Your task to perform on an android device: turn off notifications settings in the gmail app Image 0: 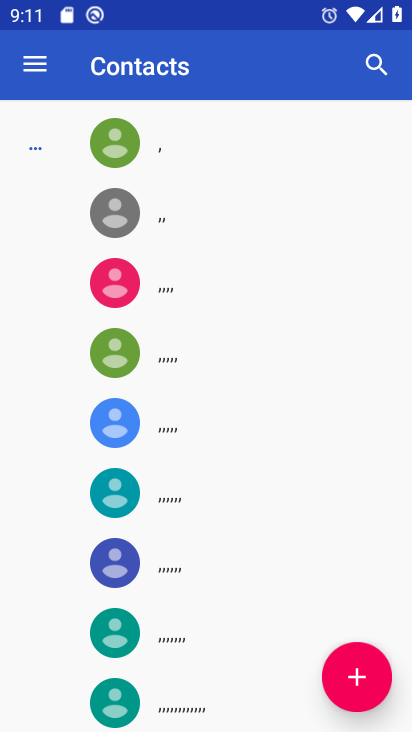
Step 0: press home button
Your task to perform on an android device: turn off notifications settings in the gmail app Image 1: 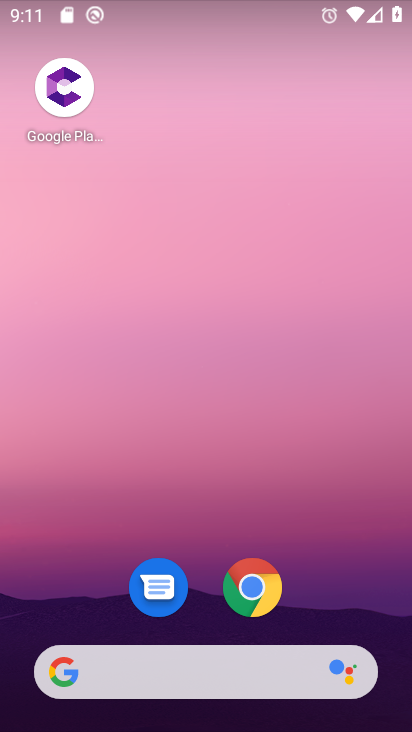
Step 1: drag from (226, 611) to (221, 109)
Your task to perform on an android device: turn off notifications settings in the gmail app Image 2: 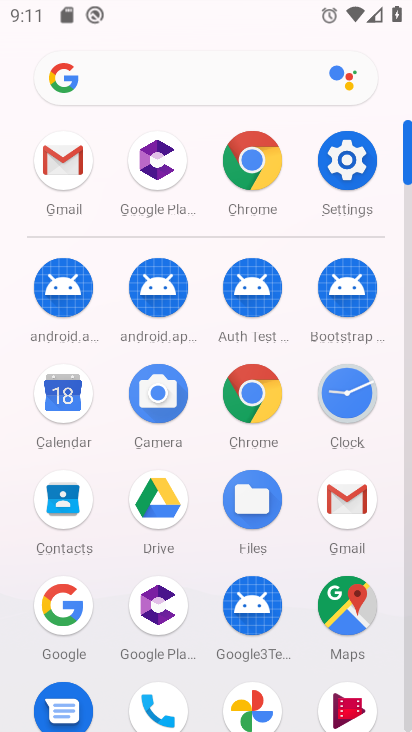
Step 2: click (336, 508)
Your task to perform on an android device: turn off notifications settings in the gmail app Image 3: 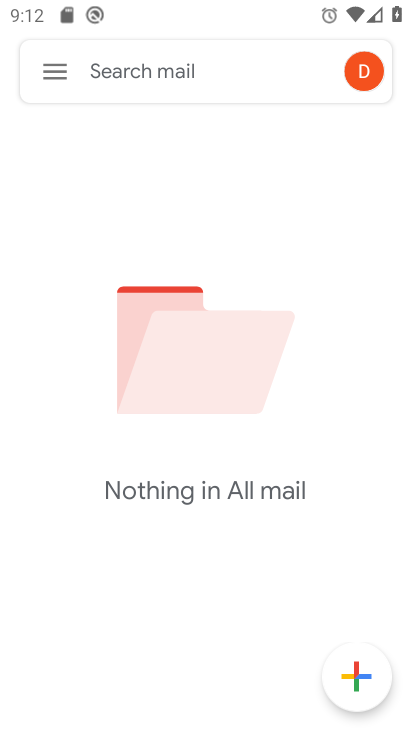
Step 3: click (56, 61)
Your task to perform on an android device: turn off notifications settings in the gmail app Image 4: 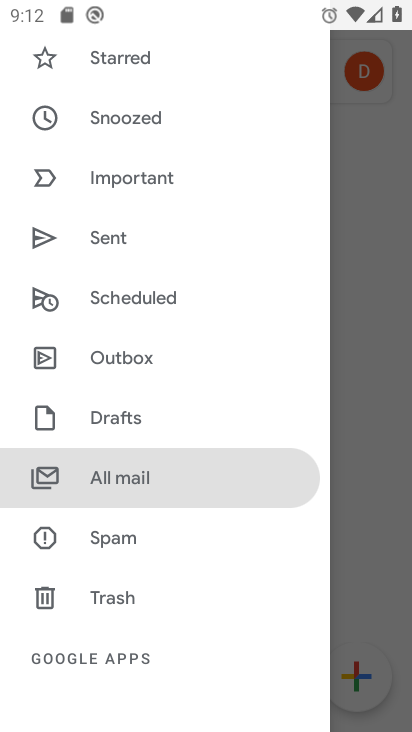
Step 4: drag from (128, 526) to (207, 197)
Your task to perform on an android device: turn off notifications settings in the gmail app Image 5: 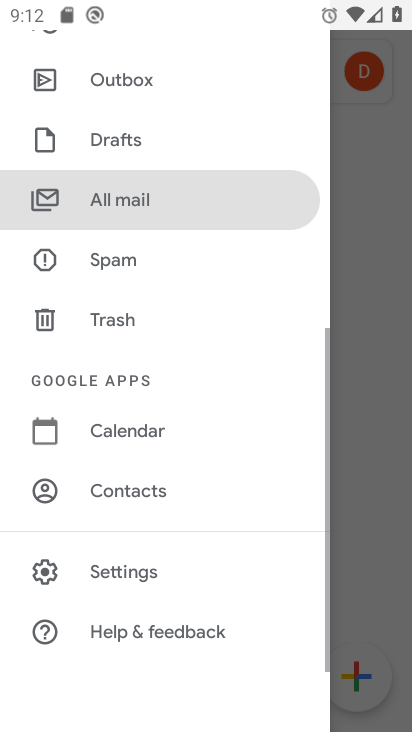
Step 5: click (145, 579)
Your task to perform on an android device: turn off notifications settings in the gmail app Image 6: 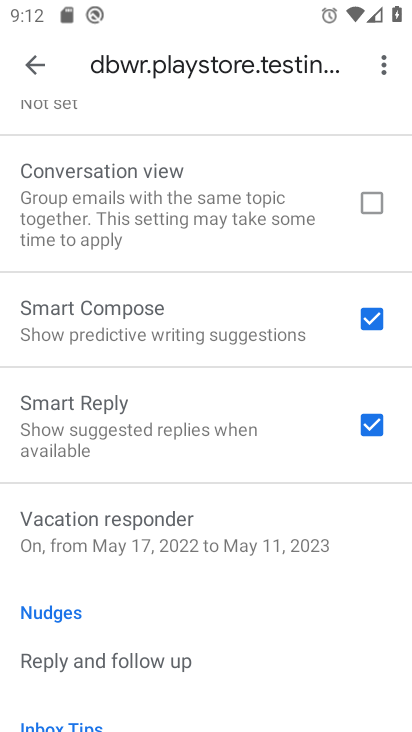
Step 6: click (37, 62)
Your task to perform on an android device: turn off notifications settings in the gmail app Image 7: 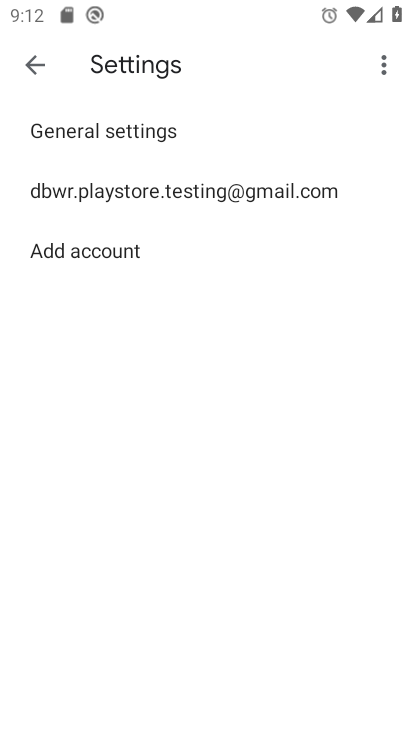
Step 7: click (88, 124)
Your task to perform on an android device: turn off notifications settings in the gmail app Image 8: 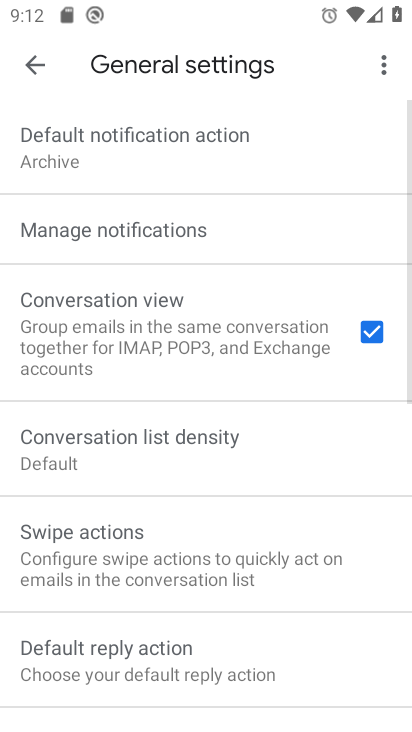
Step 8: click (159, 244)
Your task to perform on an android device: turn off notifications settings in the gmail app Image 9: 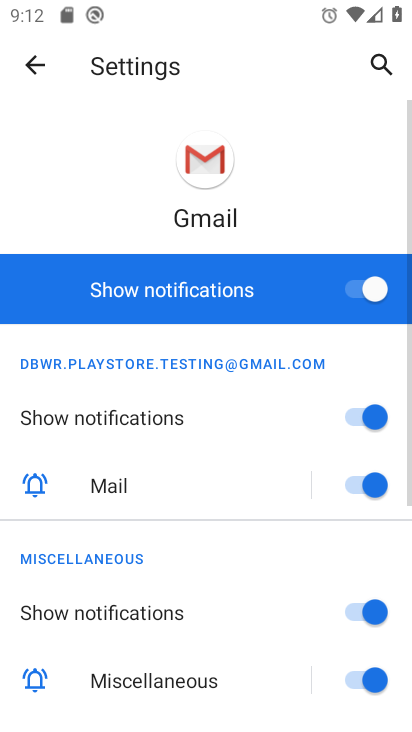
Step 9: click (339, 293)
Your task to perform on an android device: turn off notifications settings in the gmail app Image 10: 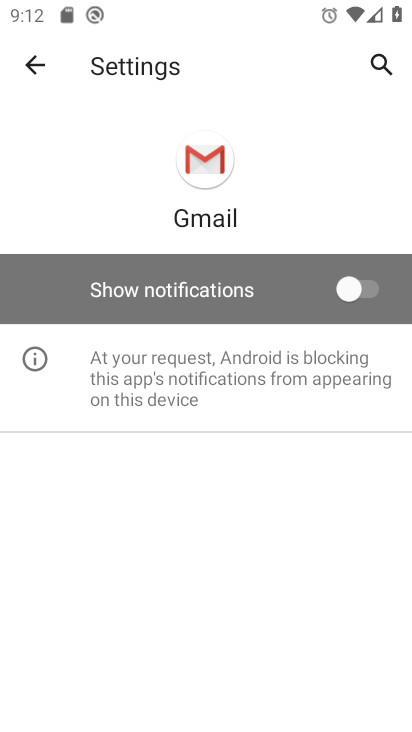
Step 10: task complete